Your task to perform on an android device: Go to wifi settings Image 0: 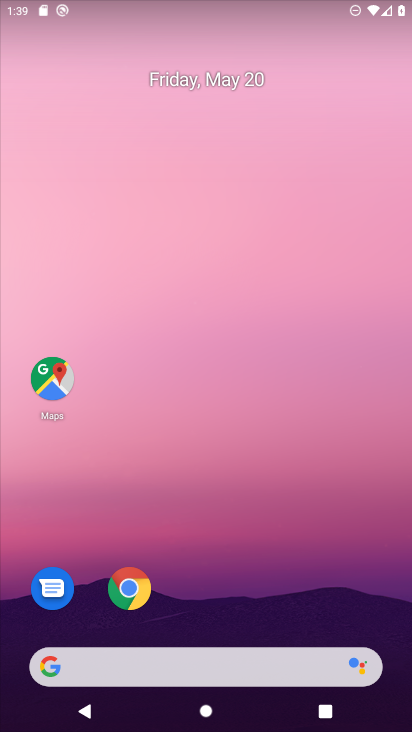
Step 0: drag from (391, 614) to (323, 80)
Your task to perform on an android device: Go to wifi settings Image 1: 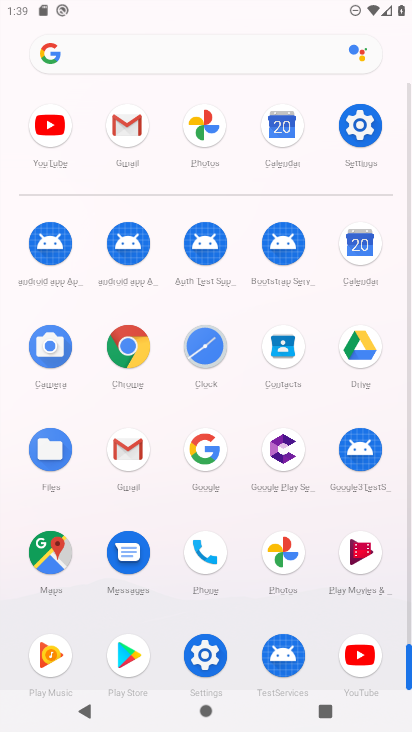
Step 1: click (204, 652)
Your task to perform on an android device: Go to wifi settings Image 2: 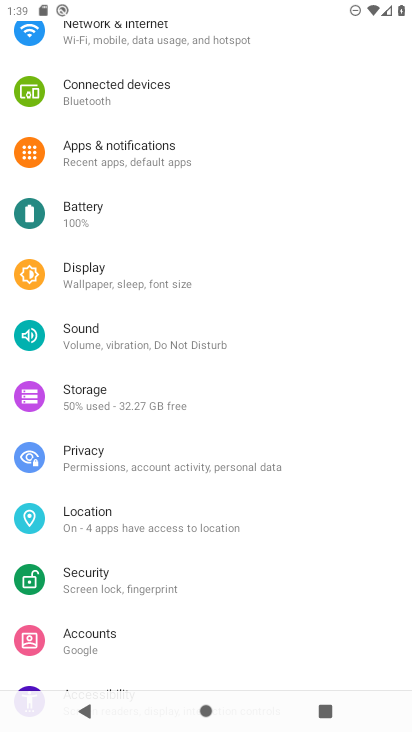
Step 2: drag from (307, 108) to (312, 372)
Your task to perform on an android device: Go to wifi settings Image 3: 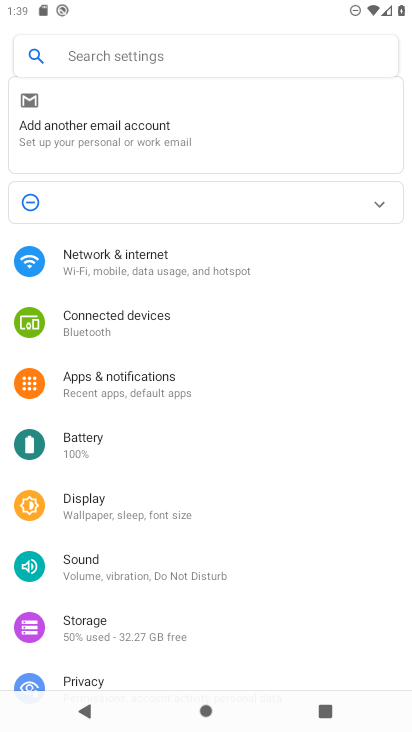
Step 3: click (96, 250)
Your task to perform on an android device: Go to wifi settings Image 4: 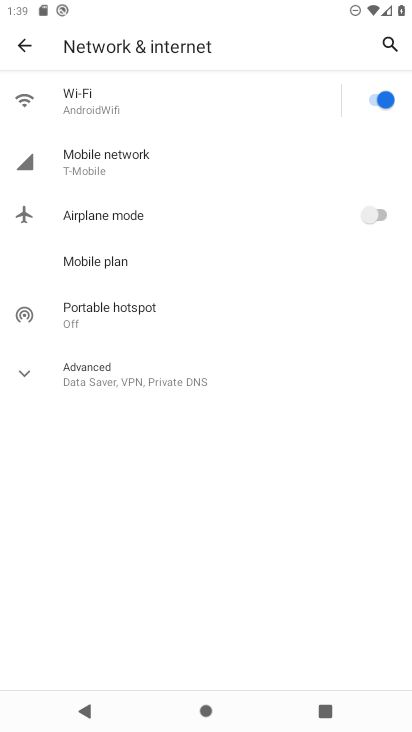
Step 4: click (70, 100)
Your task to perform on an android device: Go to wifi settings Image 5: 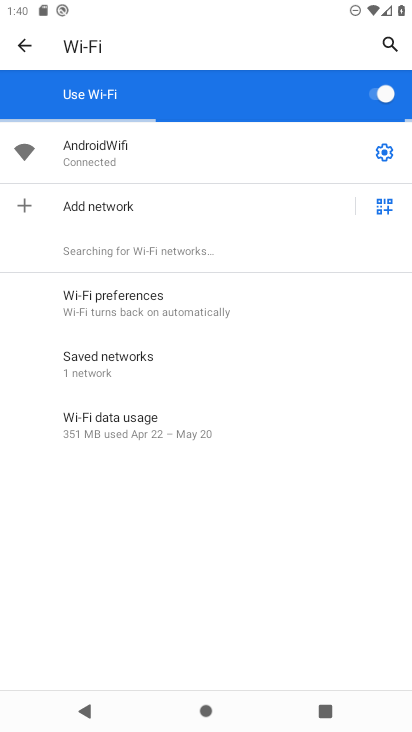
Step 5: click (382, 147)
Your task to perform on an android device: Go to wifi settings Image 6: 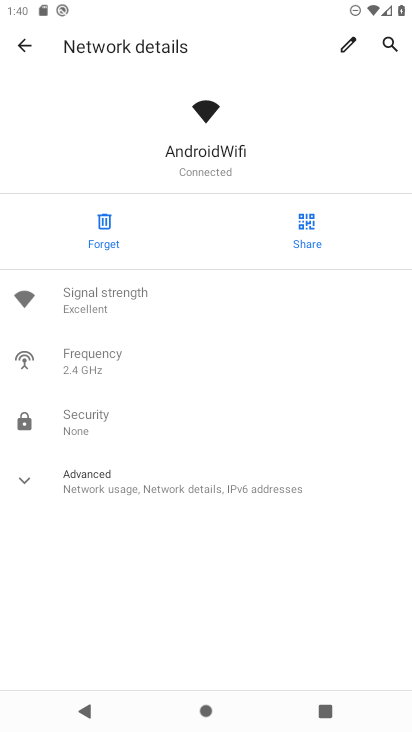
Step 6: click (11, 475)
Your task to perform on an android device: Go to wifi settings Image 7: 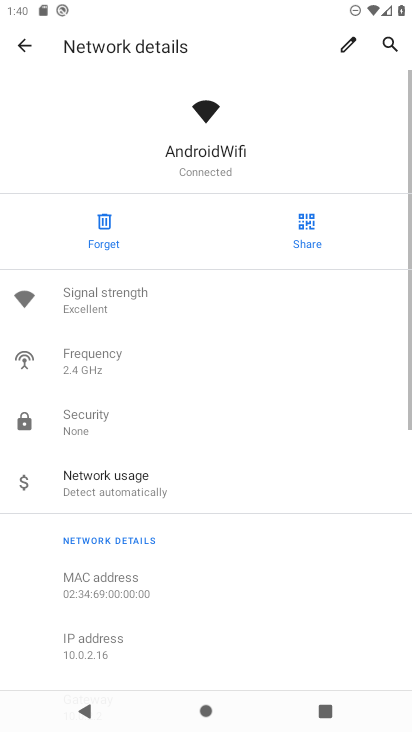
Step 7: task complete